Your task to perform on an android device: snooze an email in the gmail app Image 0: 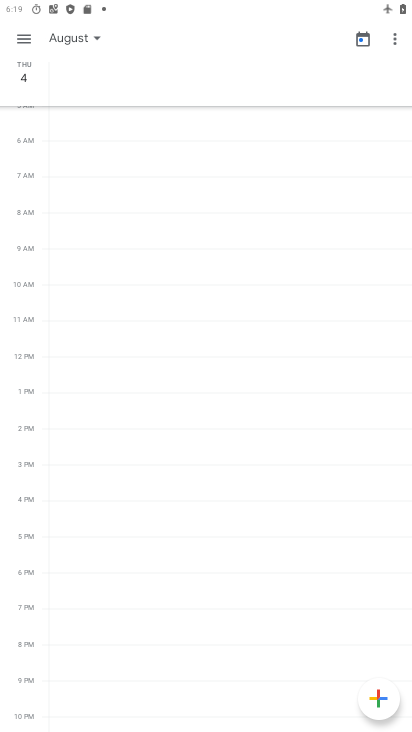
Step 0: press home button
Your task to perform on an android device: snooze an email in the gmail app Image 1: 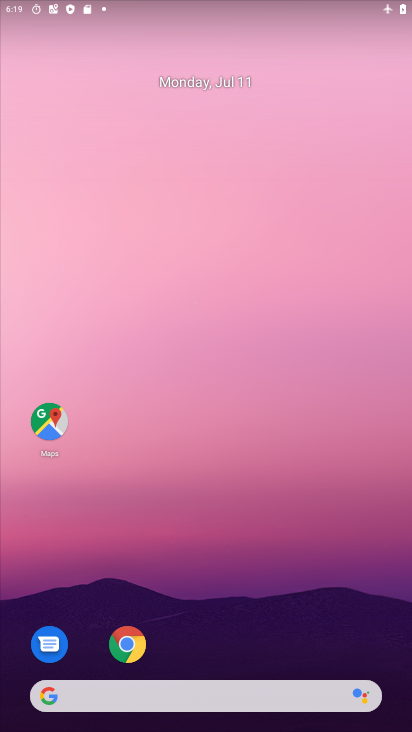
Step 1: drag from (321, 688) to (302, 152)
Your task to perform on an android device: snooze an email in the gmail app Image 2: 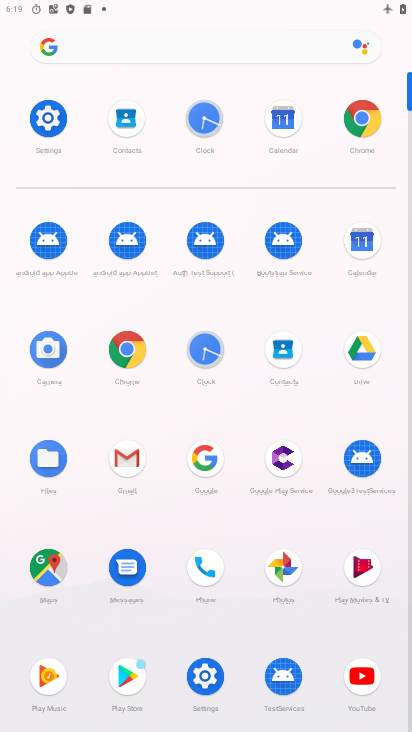
Step 2: click (129, 462)
Your task to perform on an android device: snooze an email in the gmail app Image 3: 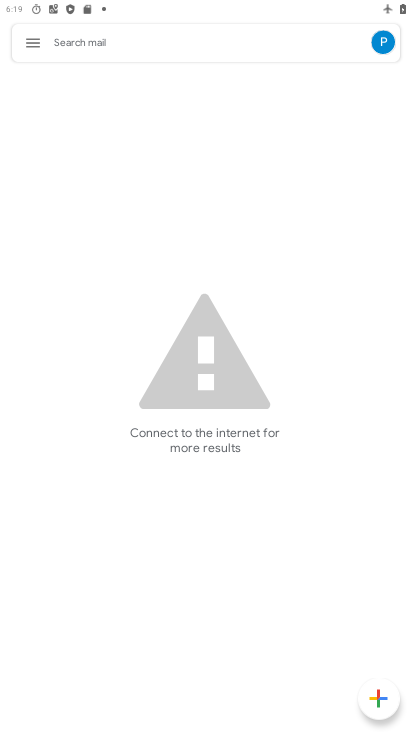
Step 3: click (34, 43)
Your task to perform on an android device: snooze an email in the gmail app Image 4: 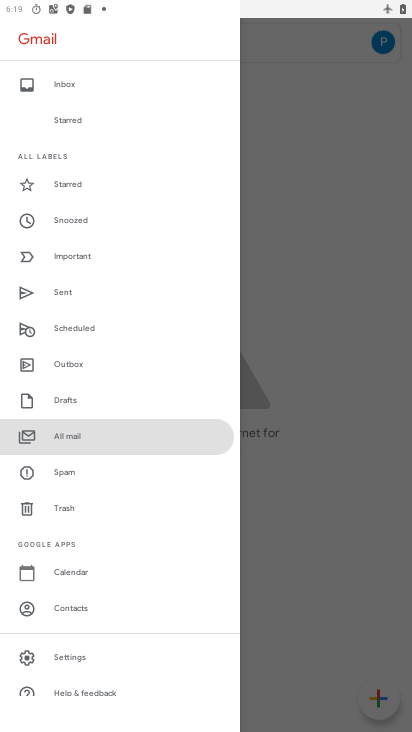
Step 4: click (75, 216)
Your task to perform on an android device: snooze an email in the gmail app Image 5: 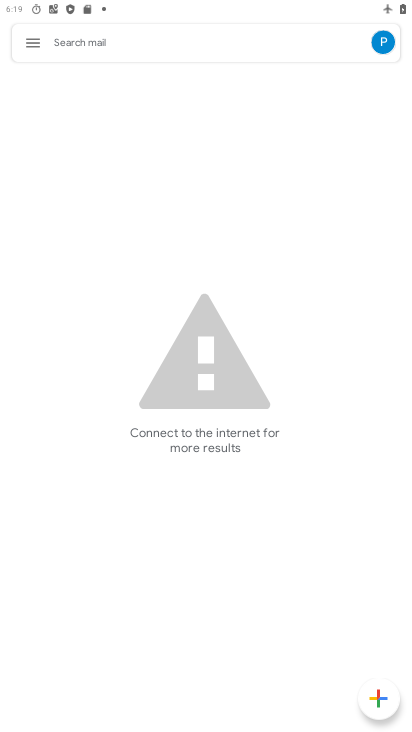
Step 5: task complete